Your task to perform on an android device: Open calendar and show me the second week of next month Image 0: 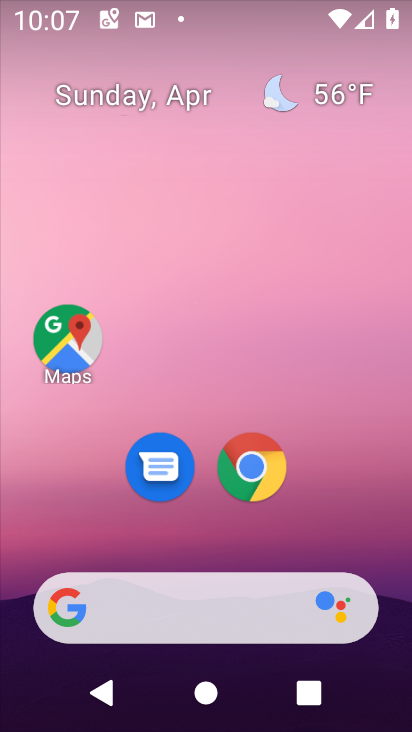
Step 0: drag from (185, 529) to (341, 77)
Your task to perform on an android device: Open calendar and show me the second week of next month Image 1: 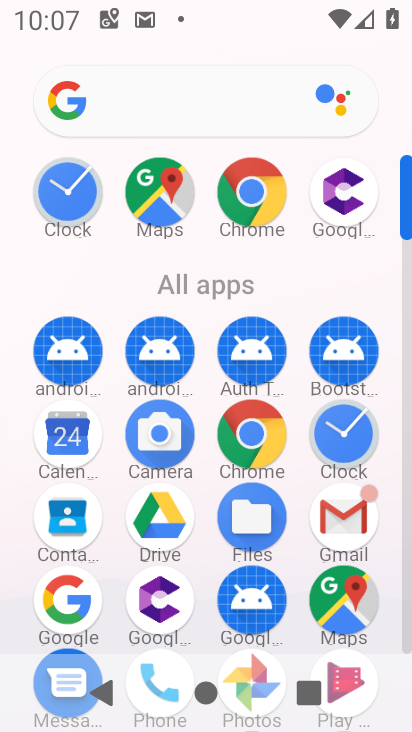
Step 1: click (86, 449)
Your task to perform on an android device: Open calendar and show me the second week of next month Image 2: 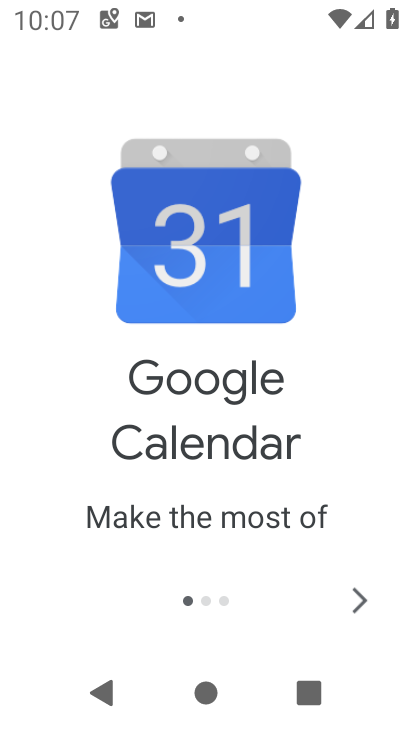
Step 2: click (369, 622)
Your task to perform on an android device: Open calendar and show me the second week of next month Image 3: 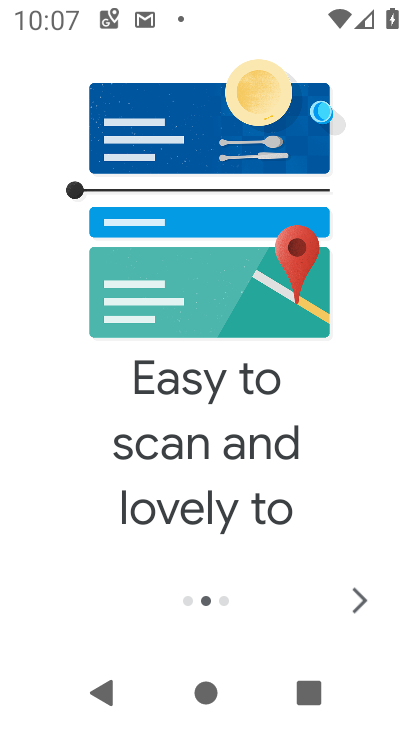
Step 3: click (366, 615)
Your task to perform on an android device: Open calendar and show me the second week of next month Image 4: 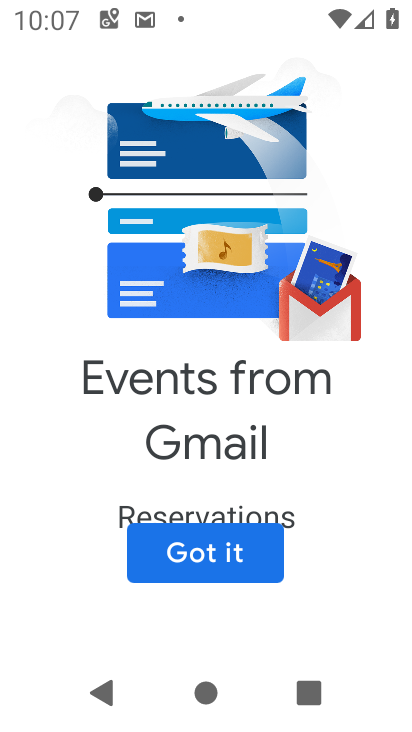
Step 4: click (220, 583)
Your task to perform on an android device: Open calendar and show me the second week of next month Image 5: 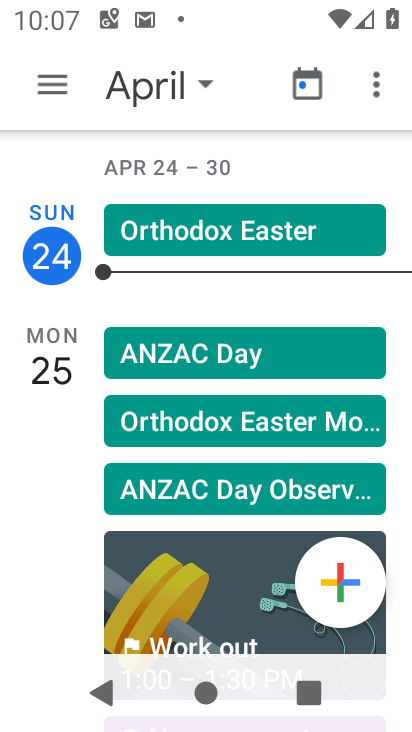
Step 5: click (143, 99)
Your task to perform on an android device: Open calendar and show me the second week of next month Image 6: 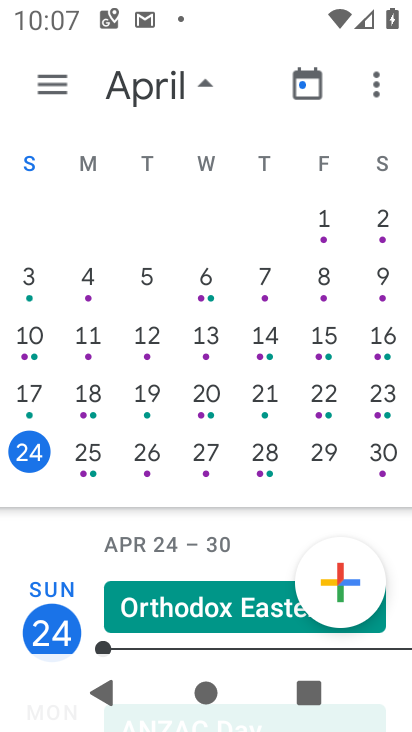
Step 6: drag from (375, 296) to (8, 299)
Your task to perform on an android device: Open calendar and show me the second week of next month Image 7: 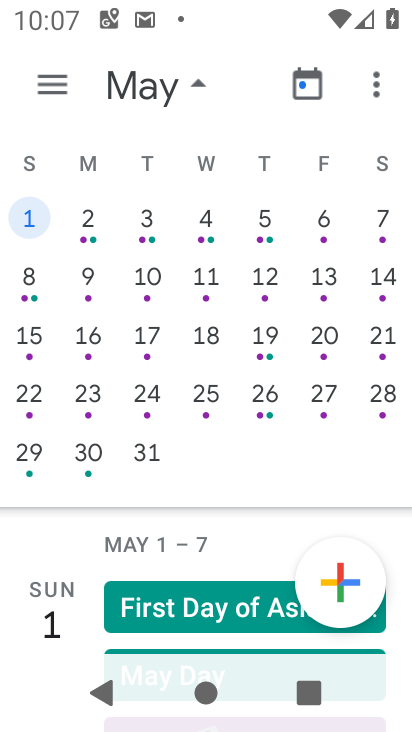
Step 7: click (40, 278)
Your task to perform on an android device: Open calendar and show me the second week of next month Image 8: 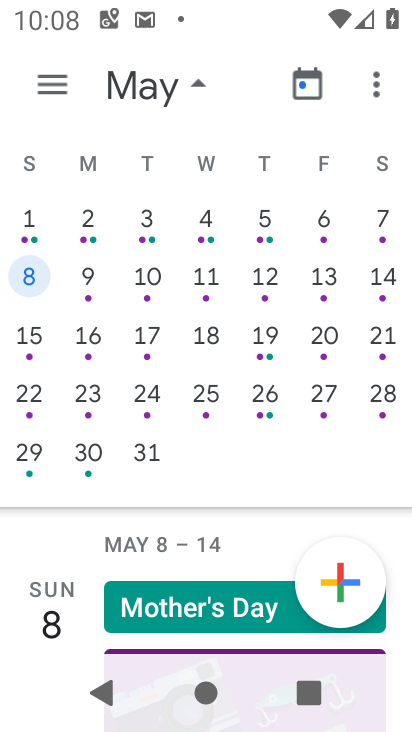
Step 8: click (64, 89)
Your task to perform on an android device: Open calendar and show me the second week of next month Image 9: 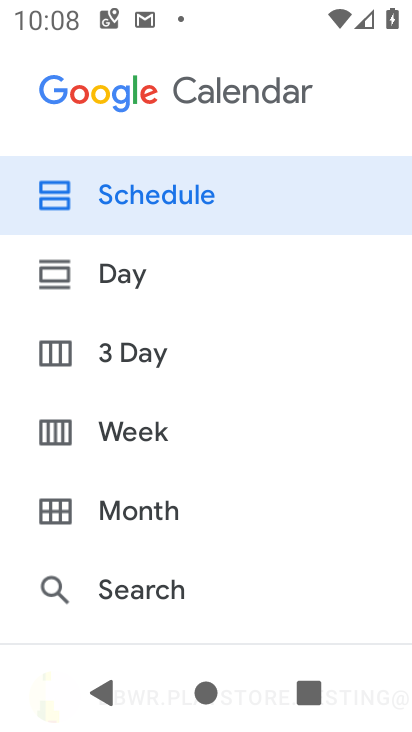
Step 9: click (159, 437)
Your task to perform on an android device: Open calendar and show me the second week of next month Image 10: 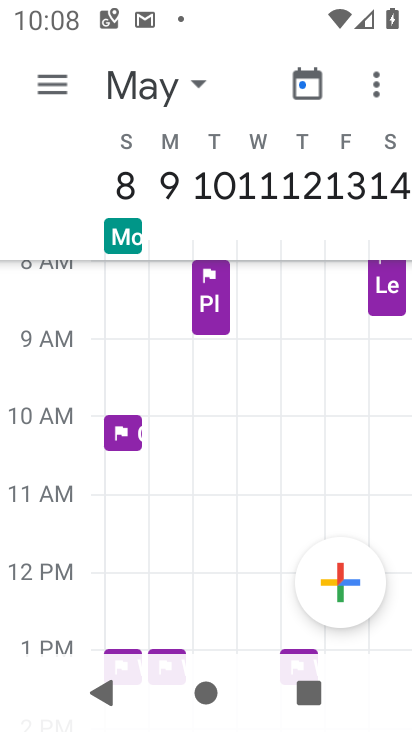
Step 10: task complete